Your task to perform on an android device: Open Yahoo.com Image 0: 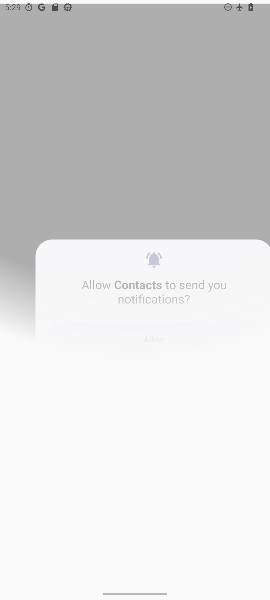
Step 0: drag from (144, 483) to (185, 150)
Your task to perform on an android device: Open Yahoo.com Image 1: 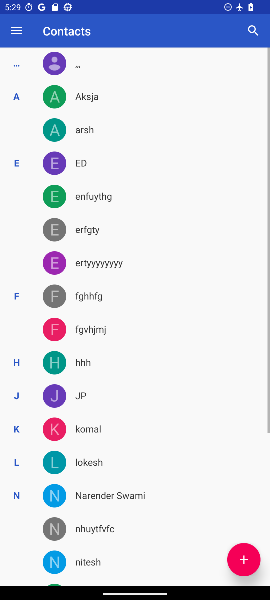
Step 1: press home button
Your task to perform on an android device: Open Yahoo.com Image 2: 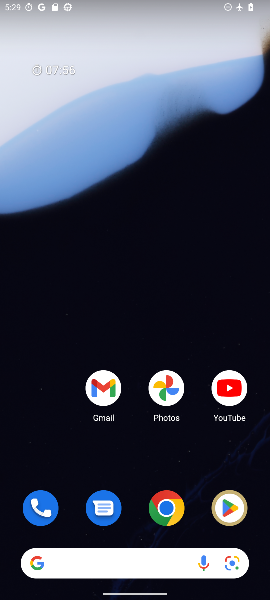
Step 2: drag from (137, 469) to (173, 187)
Your task to perform on an android device: Open Yahoo.com Image 3: 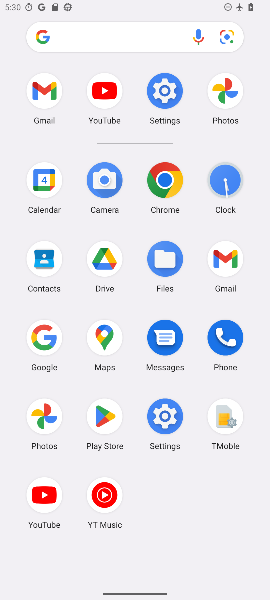
Step 3: click (163, 182)
Your task to perform on an android device: Open Yahoo.com Image 4: 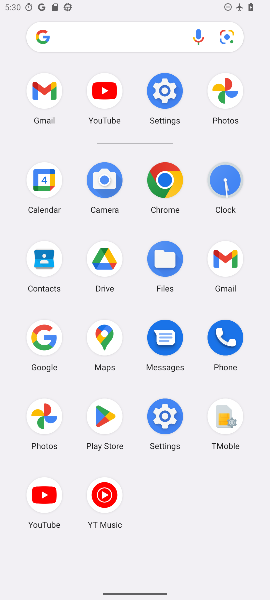
Step 4: click (163, 182)
Your task to perform on an android device: Open Yahoo.com Image 5: 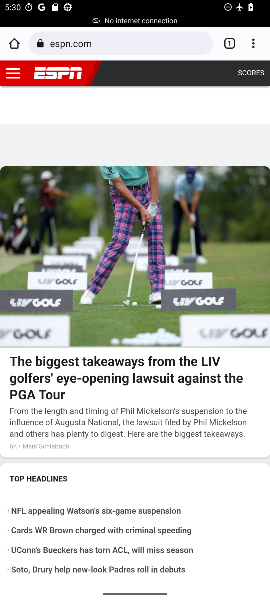
Step 5: click (124, 41)
Your task to perform on an android device: Open Yahoo.com Image 6: 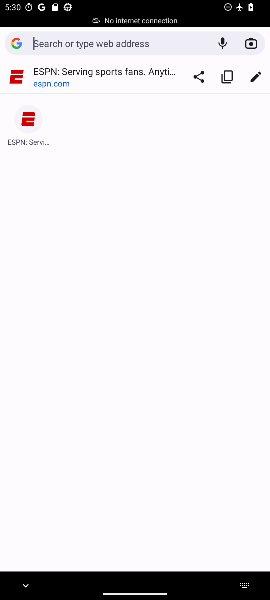
Step 6: type "Yahoo.com"
Your task to perform on an android device: Open Yahoo.com Image 7: 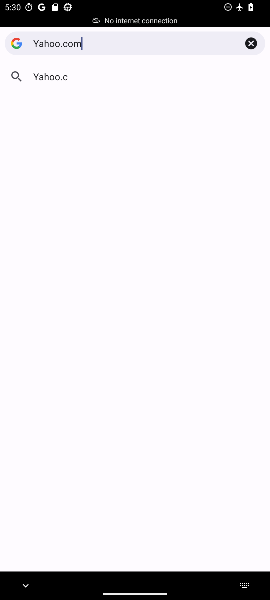
Step 7: type ""
Your task to perform on an android device: Open Yahoo.com Image 8: 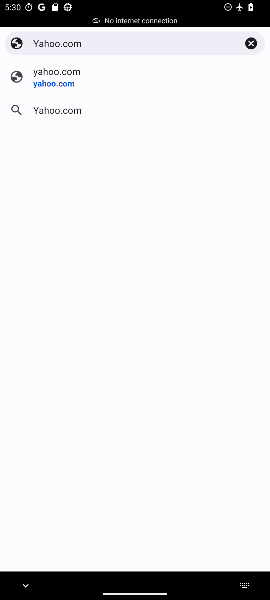
Step 8: click (39, 82)
Your task to perform on an android device: Open Yahoo.com Image 9: 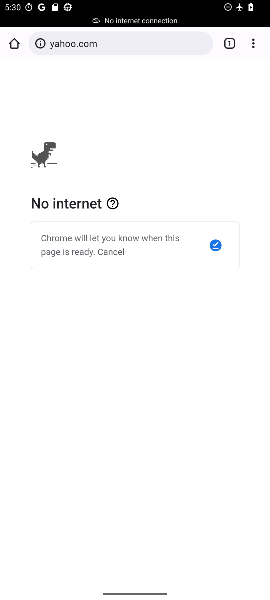
Step 9: task complete